Your task to perform on an android device: Open battery settings Image 0: 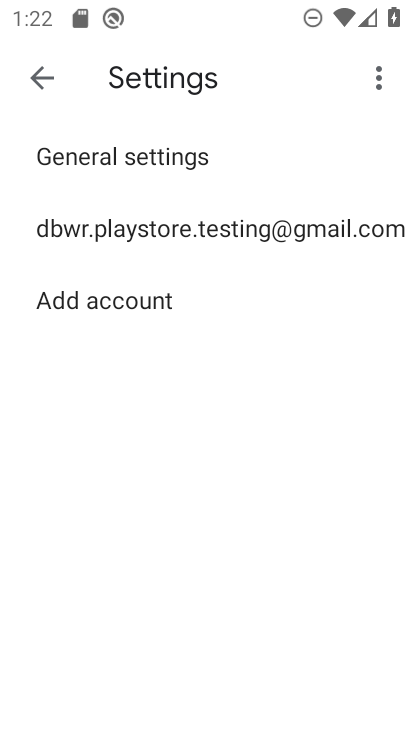
Step 0: press back button
Your task to perform on an android device: Open battery settings Image 1: 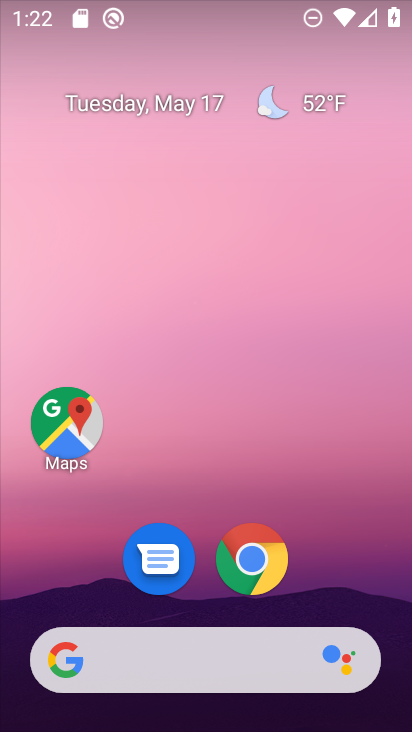
Step 1: drag from (329, 566) to (263, 113)
Your task to perform on an android device: Open battery settings Image 2: 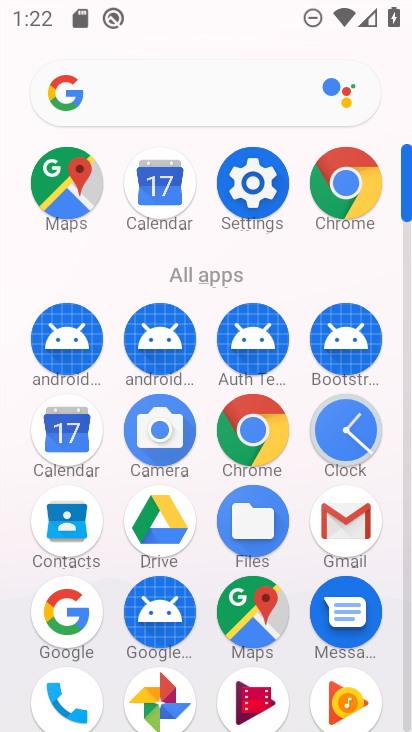
Step 2: click (255, 181)
Your task to perform on an android device: Open battery settings Image 3: 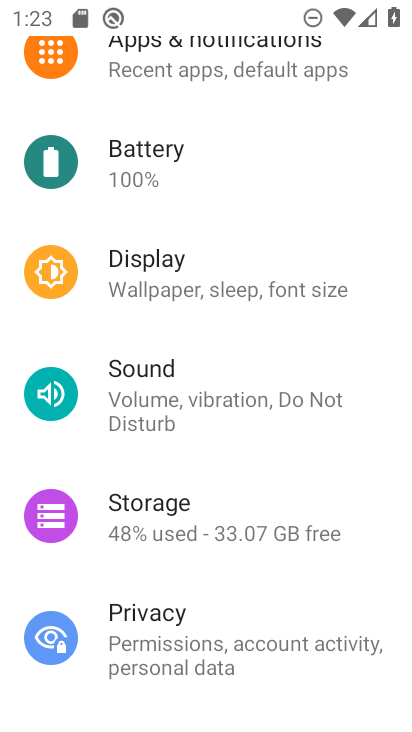
Step 3: click (162, 160)
Your task to perform on an android device: Open battery settings Image 4: 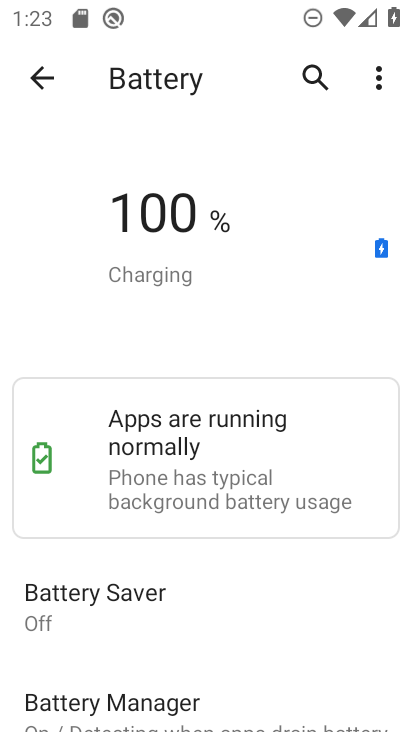
Step 4: task complete